Your task to perform on an android device: turn on notifications settings in the gmail app Image 0: 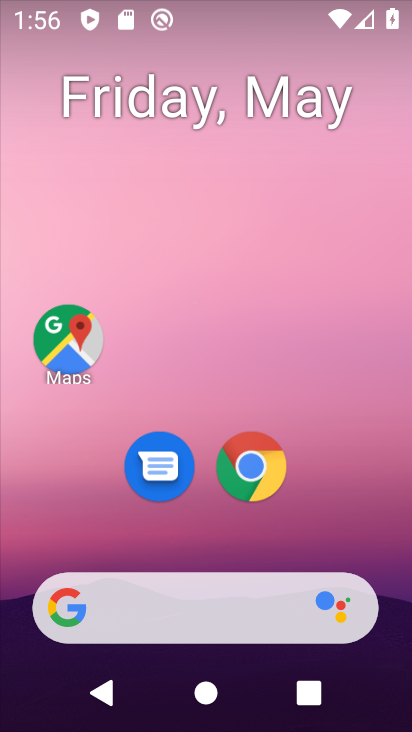
Step 0: drag from (375, 529) to (307, 96)
Your task to perform on an android device: turn on notifications settings in the gmail app Image 1: 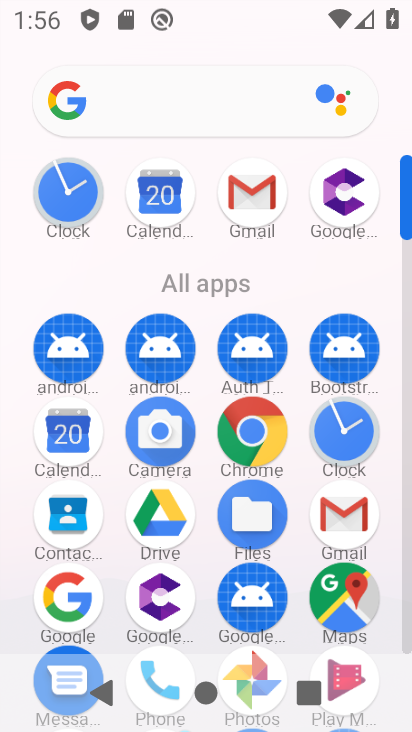
Step 1: click (277, 209)
Your task to perform on an android device: turn on notifications settings in the gmail app Image 2: 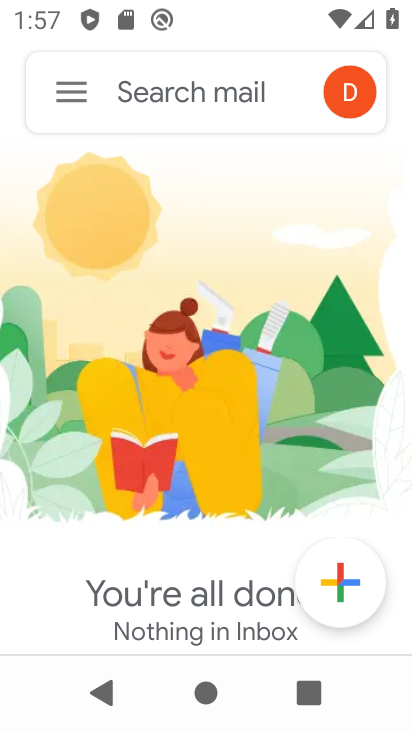
Step 2: press home button
Your task to perform on an android device: turn on notifications settings in the gmail app Image 3: 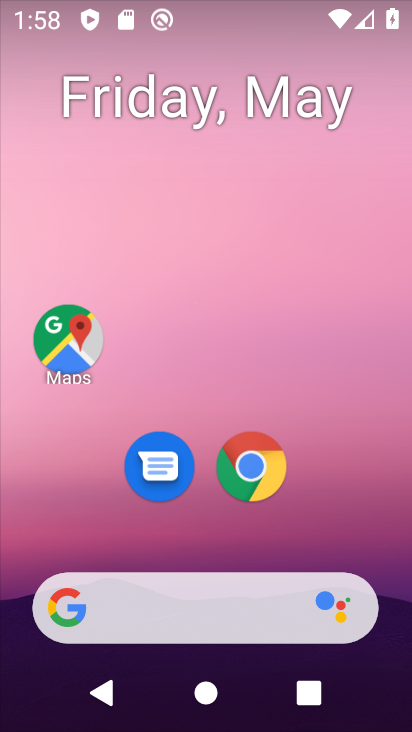
Step 3: drag from (353, 498) to (396, 105)
Your task to perform on an android device: turn on notifications settings in the gmail app Image 4: 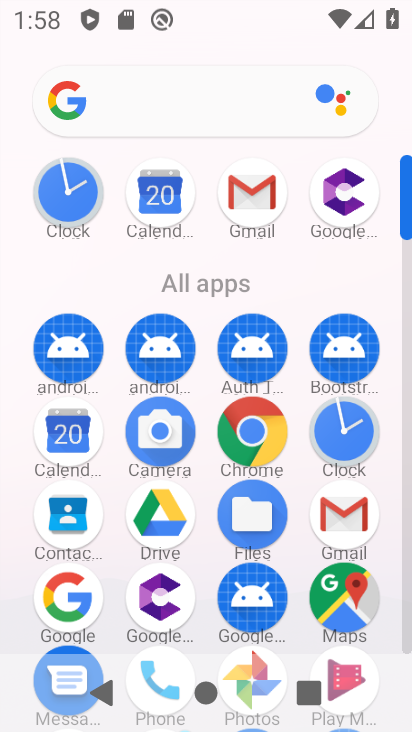
Step 4: click (225, 168)
Your task to perform on an android device: turn on notifications settings in the gmail app Image 5: 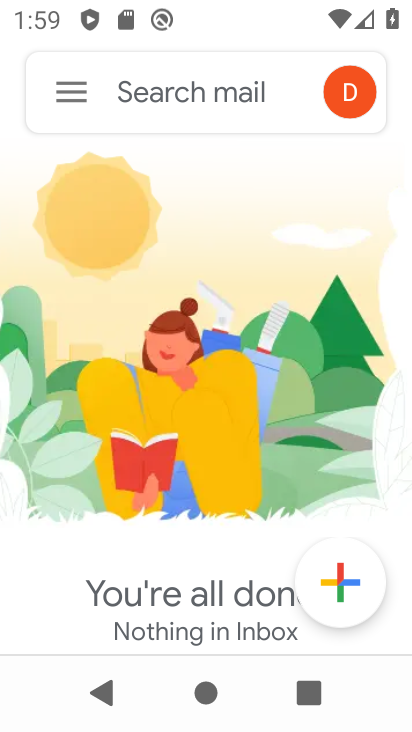
Step 5: task complete